Your task to perform on an android device: turn off notifications in google photos Image 0: 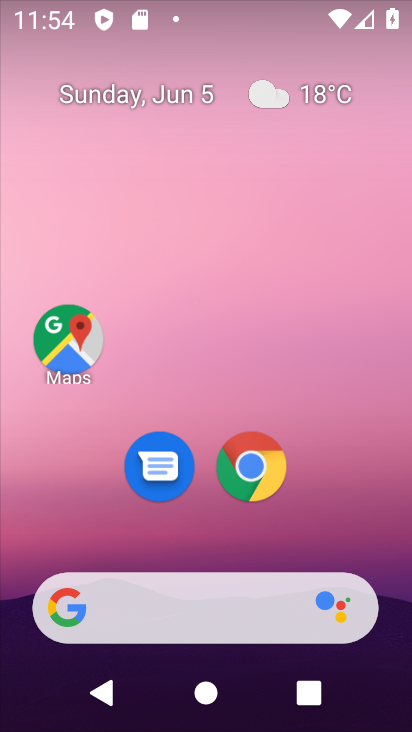
Step 0: drag from (364, 547) to (230, 20)
Your task to perform on an android device: turn off notifications in google photos Image 1: 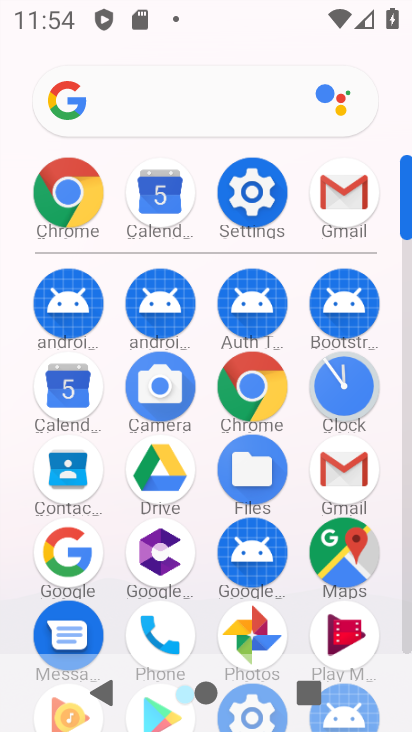
Step 1: drag from (34, 438) to (31, 503)
Your task to perform on an android device: turn off notifications in google photos Image 2: 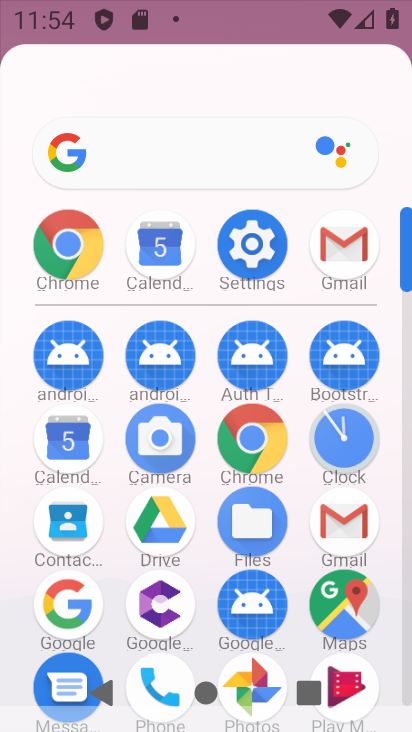
Step 2: drag from (20, 524) to (15, 253)
Your task to perform on an android device: turn off notifications in google photos Image 3: 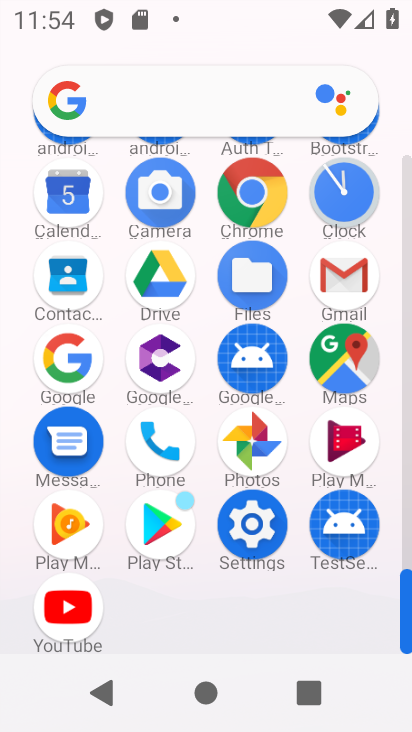
Step 3: click (252, 435)
Your task to perform on an android device: turn off notifications in google photos Image 4: 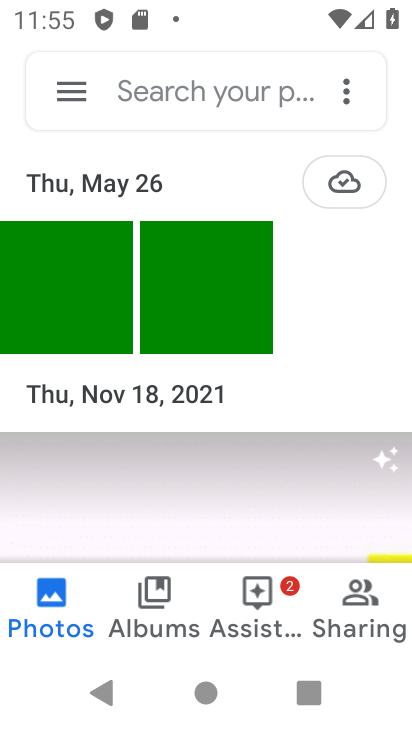
Step 4: click (65, 70)
Your task to perform on an android device: turn off notifications in google photos Image 5: 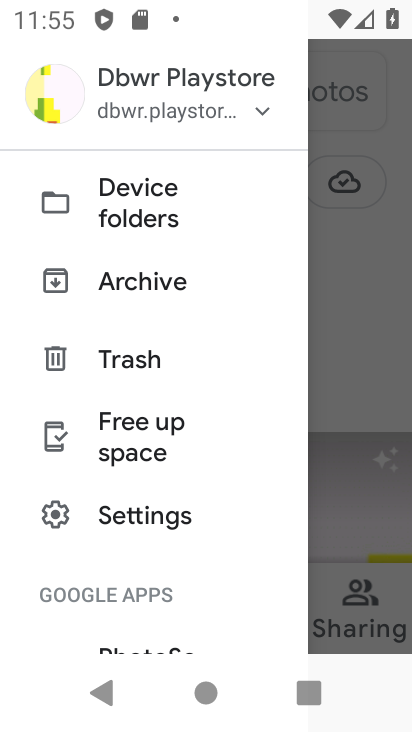
Step 5: drag from (175, 527) to (189, 154)
Your task to perform on an android device: turn off notifications in google photos Image 6: 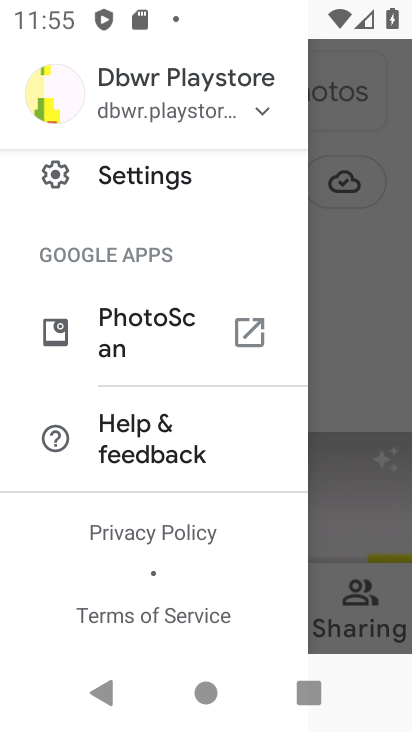
Step 6: click (187, 171)
Your task to perform on an android device: turn off notifications in google photos Image 7: 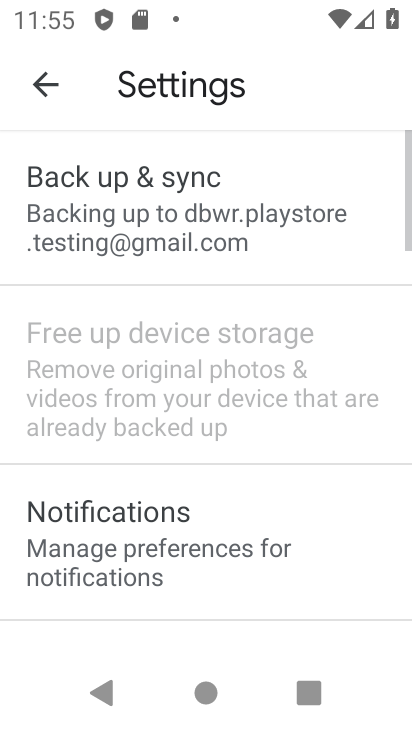
Step 7: click (188, 196)
Your task to perform on an android device: turn off notifications in google photos Image 8: 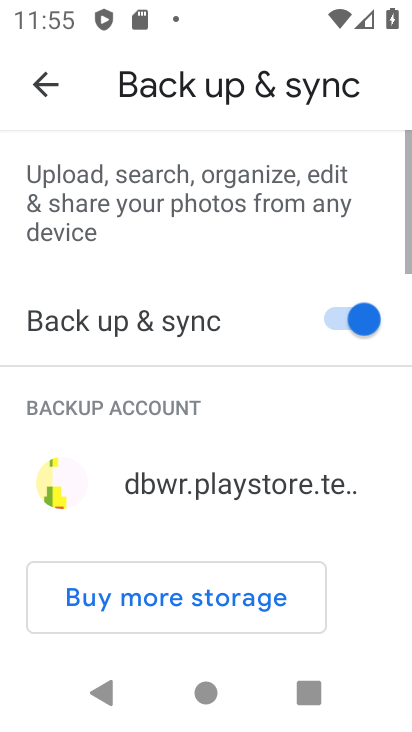
Step 8: drag from (183, 497) to (183, 88)
Your task to perform on an android device: turn off notifications in google photos Image 9: 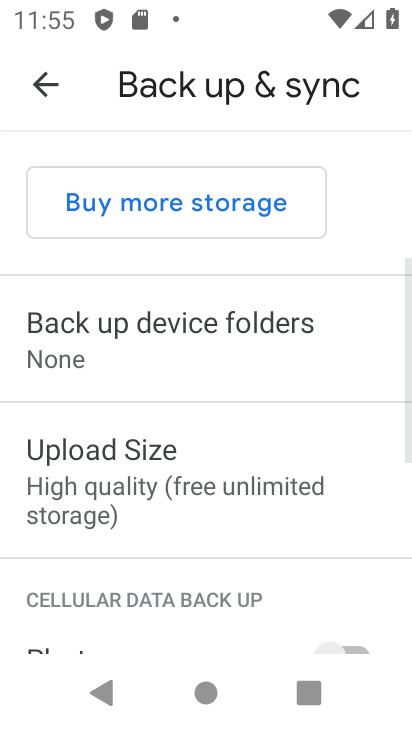
Step 9: drag from (232, 525) to (244, 202)
Your task to perform on an android device: turn off notifications in google photos Image 10: 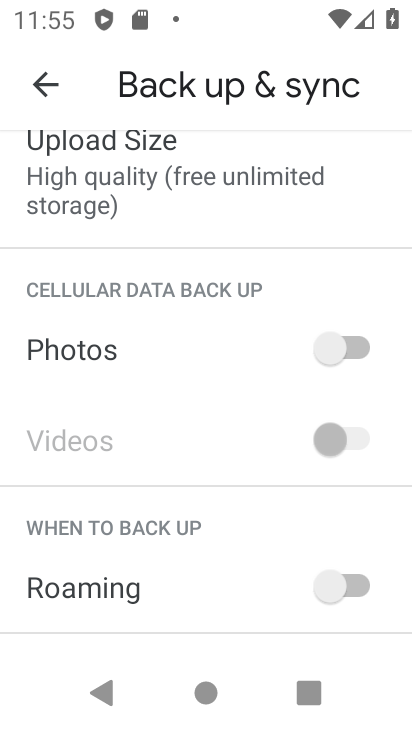
Step 10: drag from (189, 563) to (218, 207)
Your task to perform on an android device: turn off notifications in google photos Image 11: 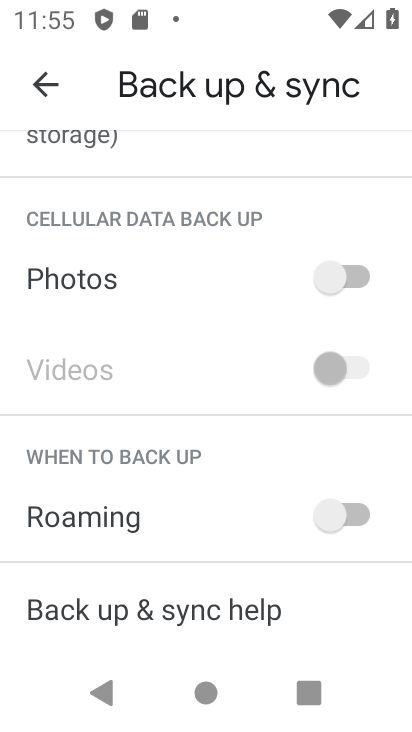
Step 11: drag from (174, 551) to (211, 159)
Your task to perform on an android device: turn off notifications in google photos Image 12: 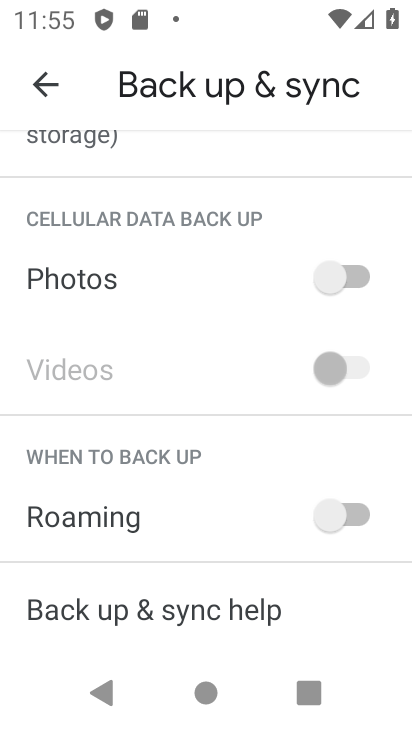
Step 12: click (44, 76)
Your task to perform on an android device: turn off notifications in google photos Image 13: 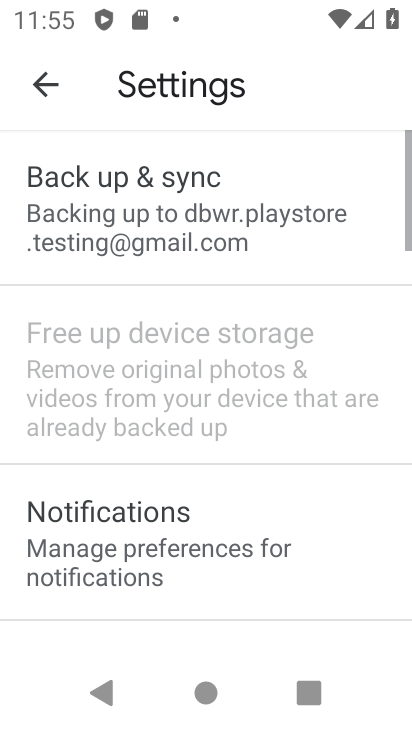
Step 13: drag from (193, 526) to (243, 201)
Your task to perform on an android device: turn off notifications in google photos Image 14: 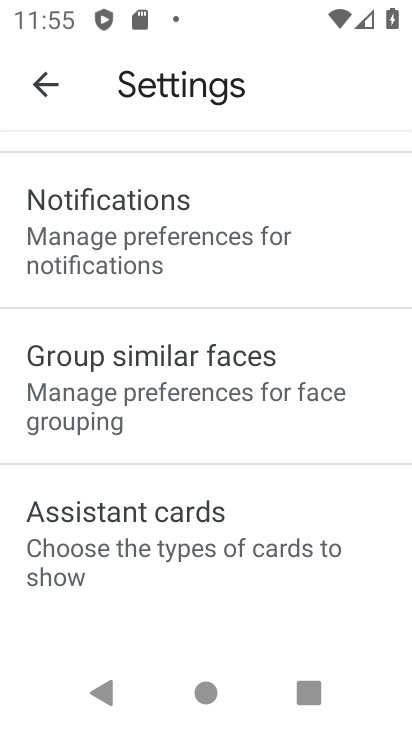
Step 14: click (226, 249)
Your task to perform on an android device: turn off notifications in google photos Image 15: 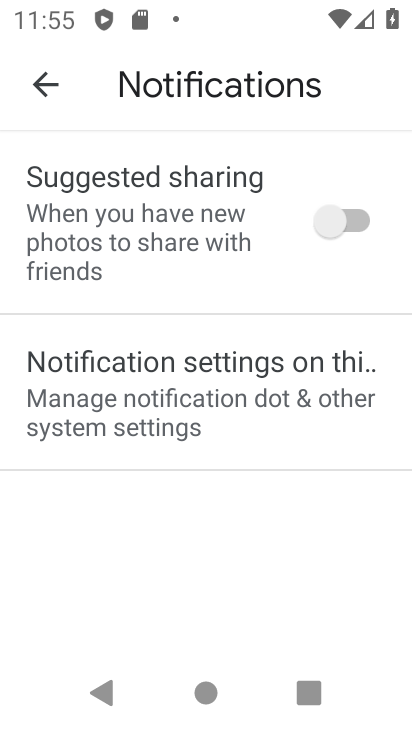
Step 15: click (273, 409)
Your task to perform on an android device: turn off notifications in google photos Image 16: 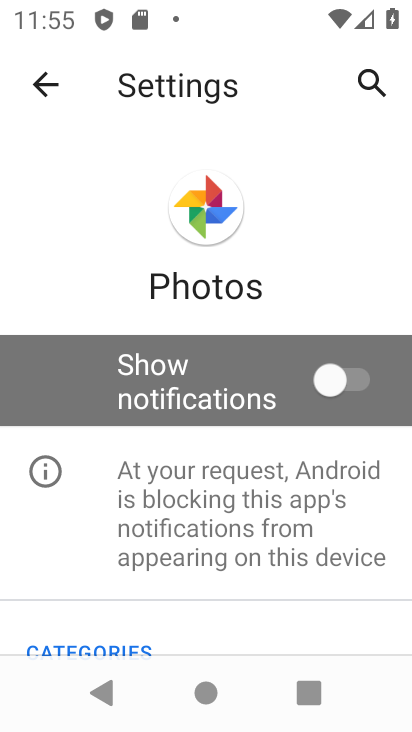
Step 16: task complete